Your task to perform on an android device: set an alarm Image 0: 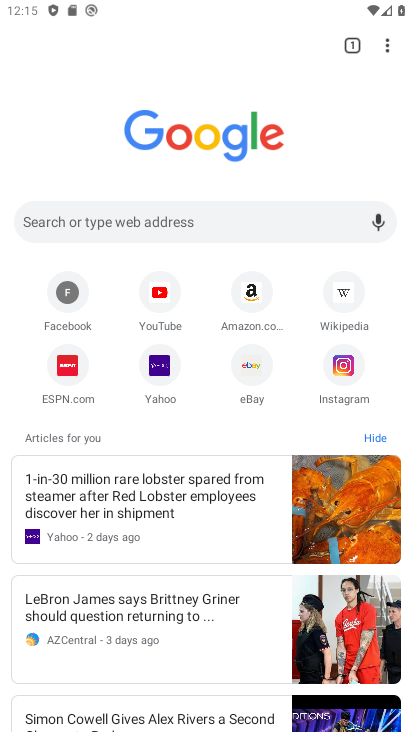
Step 0: press home button
Your task to perform on an android device: set an alarm Image 1: 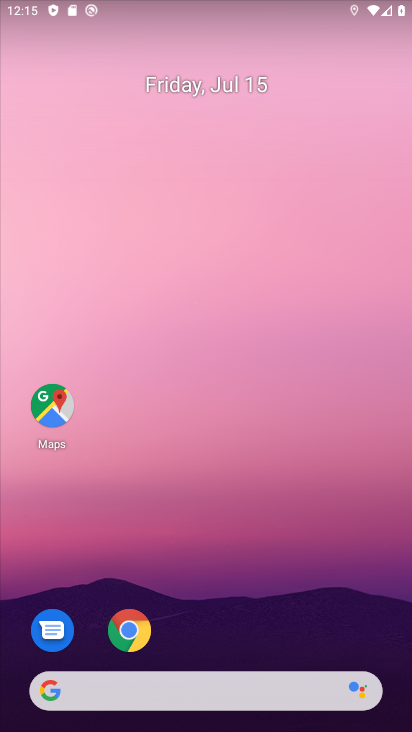
Step 1: drag from (195, 593) to (144, 31)
Your task to perform on an android device: set an alarm Image 2: 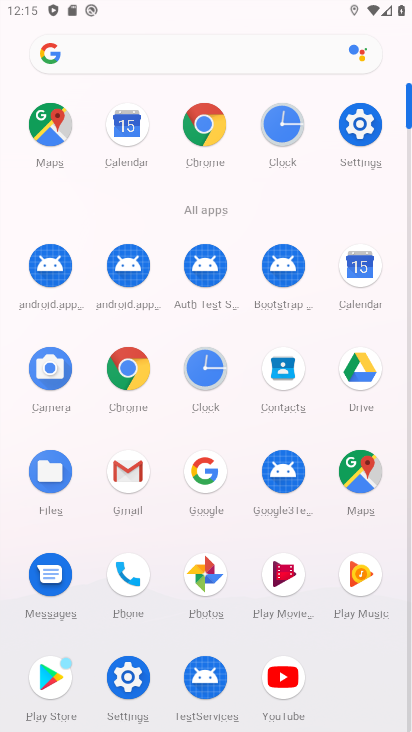
Step 2: click (285, 139)
Your task to perform on an android device: set an alarm Image 3: 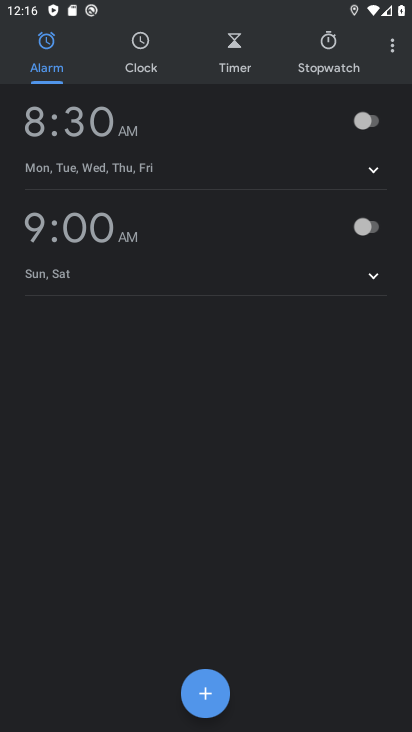
Step 3: click (369, 121)
Your task to perform on an android device: set an alarm Image 4: 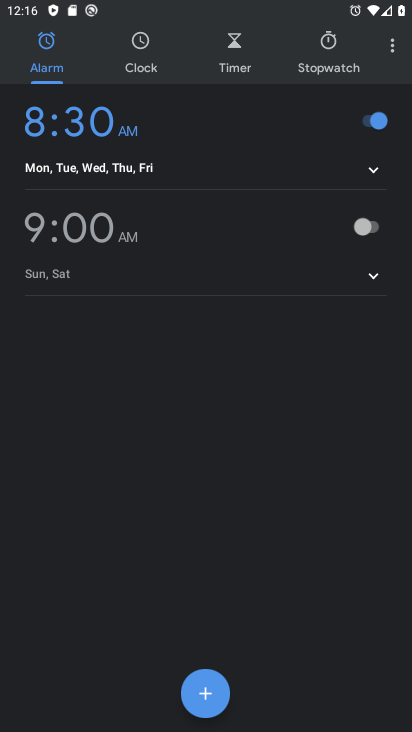
Step 4: task complete